Your task to perform on an android device: Go to Reddit.com Image 0: 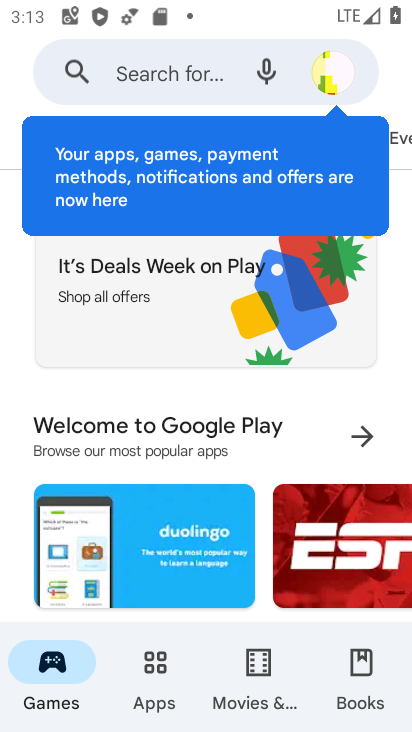
Step 0: press home button
Your task to perform on an android device: Go to Reddit.com Image 1: 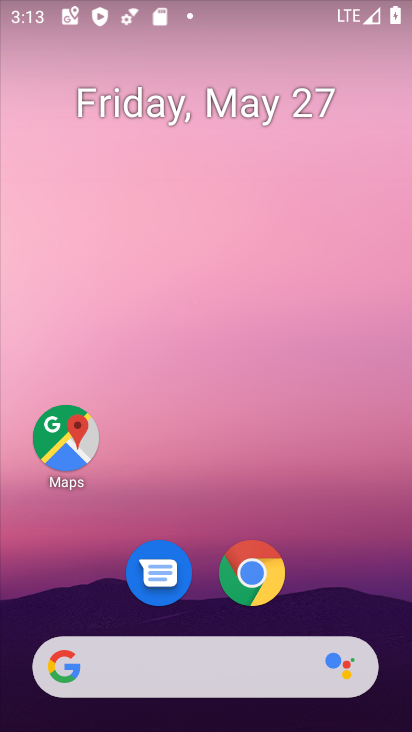
Step 1: click (217, 662)
Your task to perform on an android device: Go to Reddit.com Image 2: 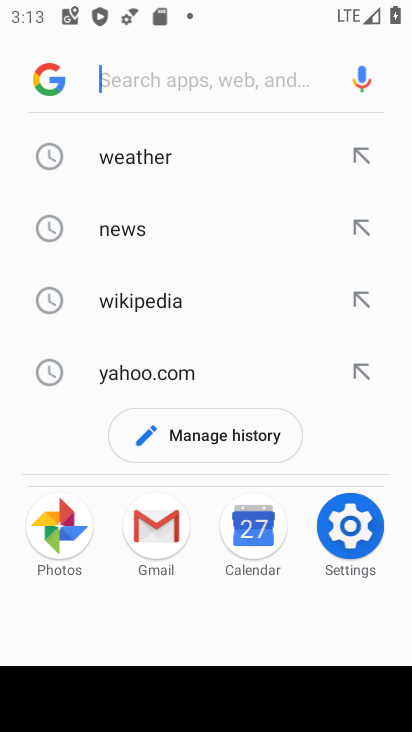
Step 2: type "reddit.com"
Your task to perform on an android device: Go to Reddit.com Image 3: 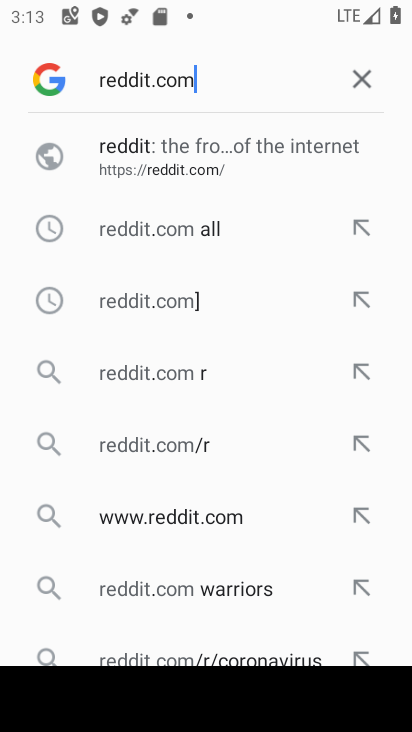
Step 3: click (156, 151)
Your task to perform on an android device: Go to Reddit.com Image 4: 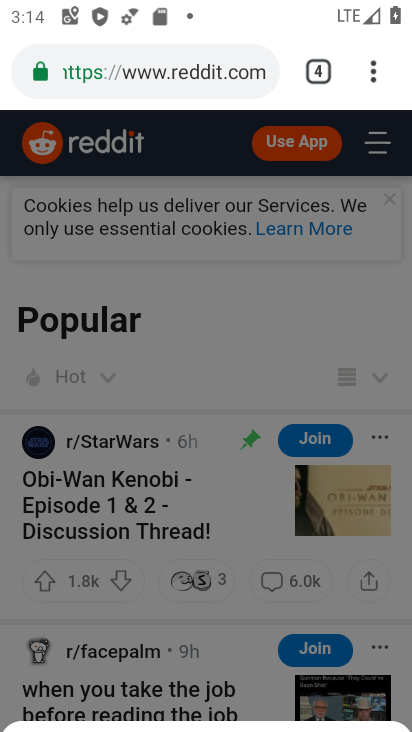
Step 4: task complete